Your task to perform on an android device: see sites visited before in the chrome app Image 0: 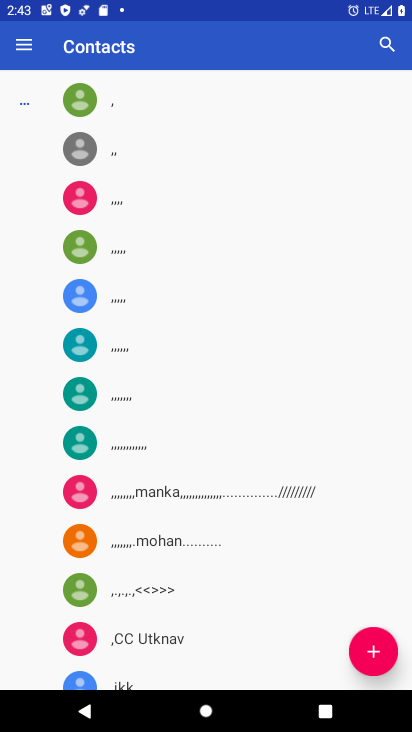
Step 0: press home button
Your task to perform on an android device: see sites visited before in the chrome app Image 1: 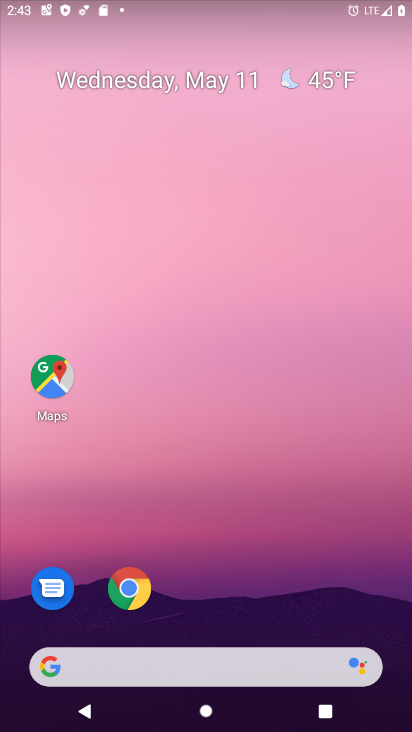
Step 1: click (126, 584)
Your task to perform on an android device: see sites visited before in the chrome app Image 2: 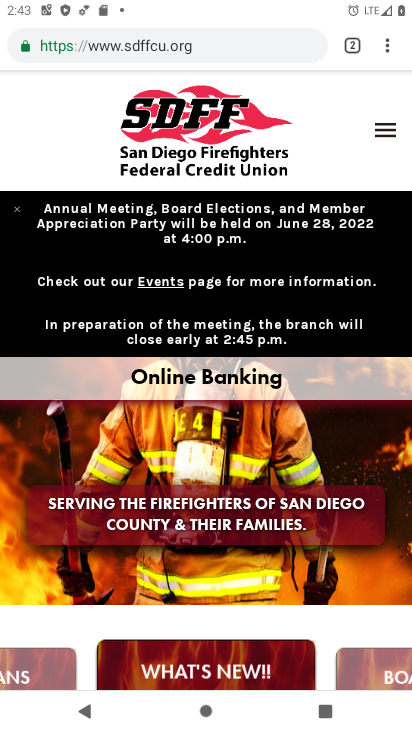
Step 2: task complete